Your task to perform on an android device: visit the assistant section in the google photos Image 0: 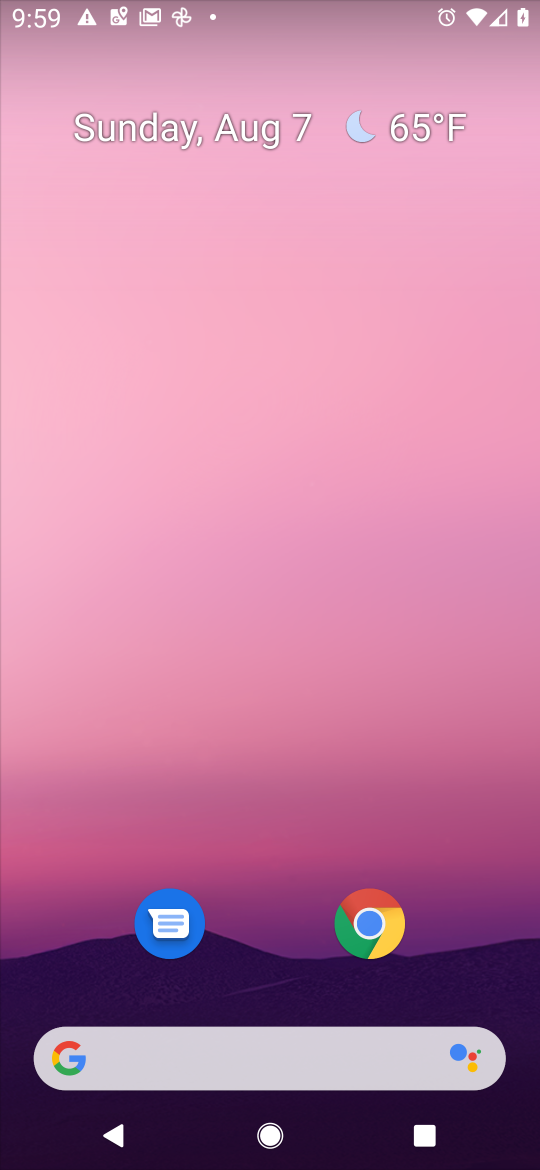
Step 0: drag from (460, 985) to (266, 32)
Your task to perform on an android device: visit the assistant section in the google photos Image 1: 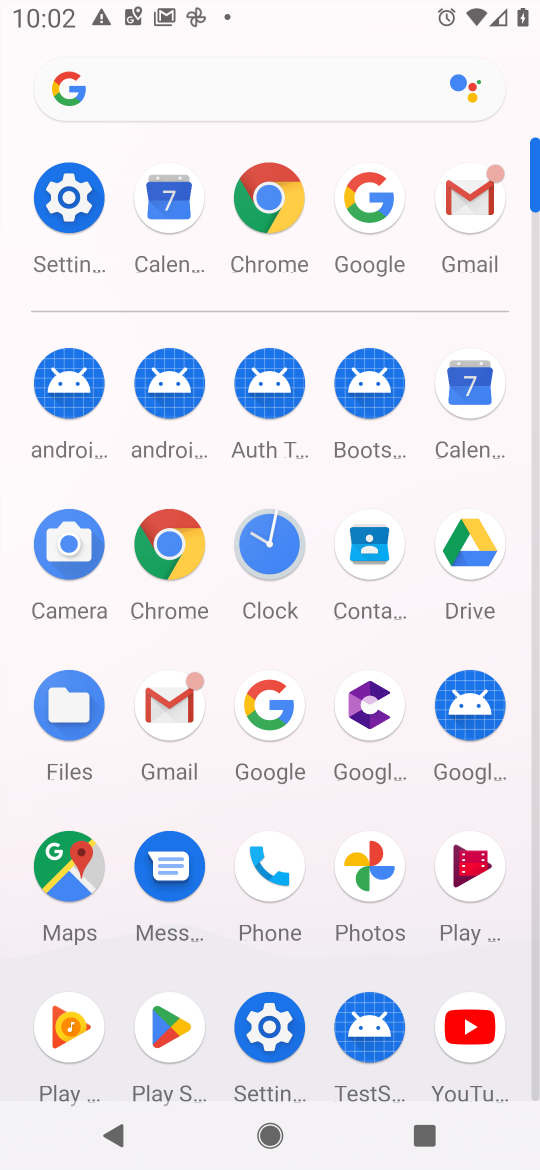
Step 1: click (352, 872)
Your task to perform on an android device: visit the assistant section in the google photos Image 2: 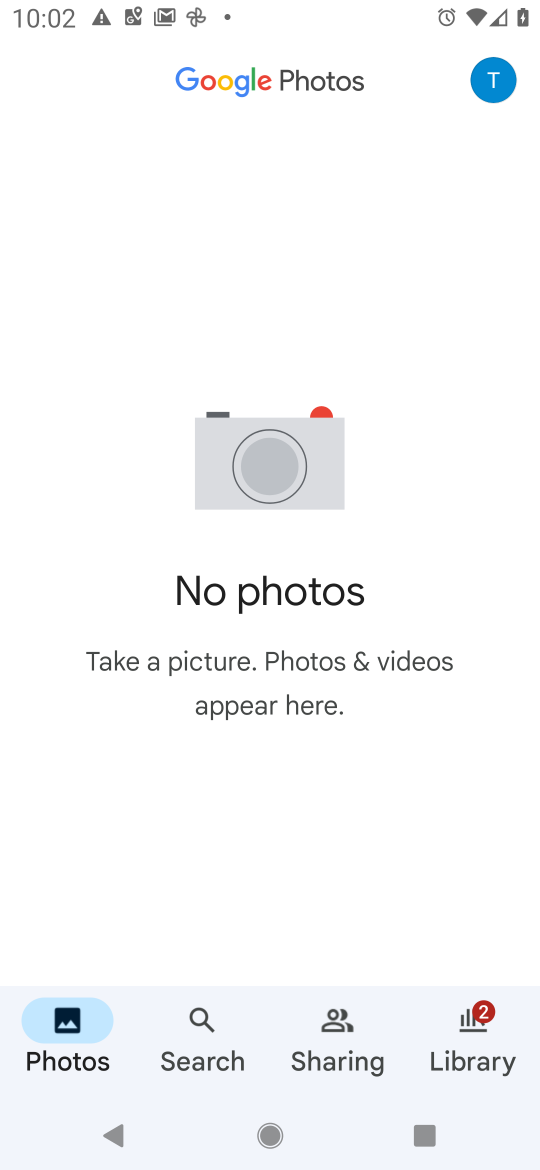
Step 2: task complete